Your task to perform on an android device: set an alarm Image 0: 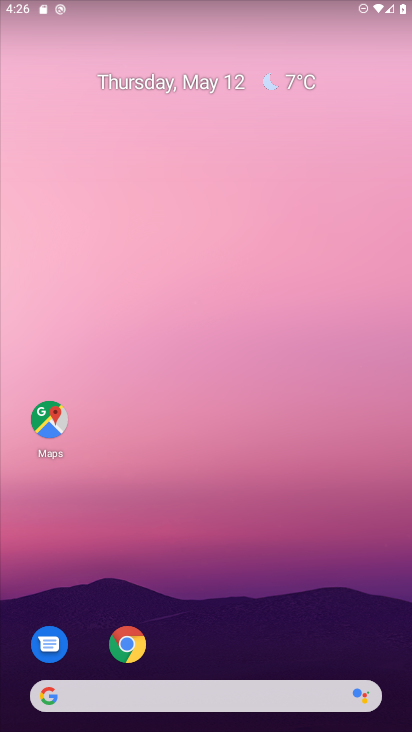
Step 0: drag from (202, 632) to (262, 28)
Your task to perform on an android device: set an alarm Image 1: 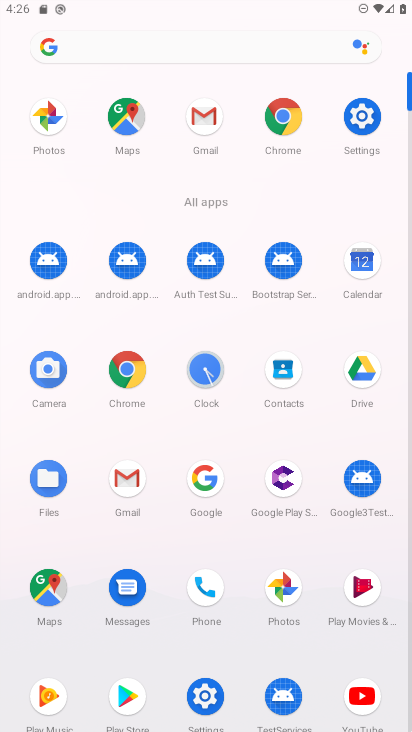
Step 1: click (207, 378)
Your task to perform on an android device: set an alarm Image 2: 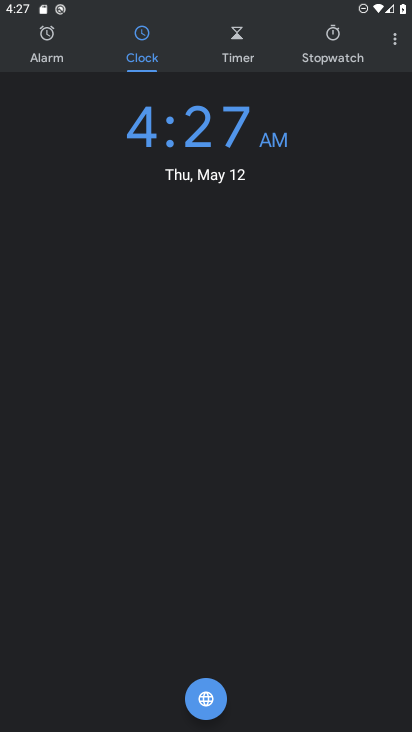
Step 2: click (68, 51)
Your task to perform on an android device: set an alarm Image 3: 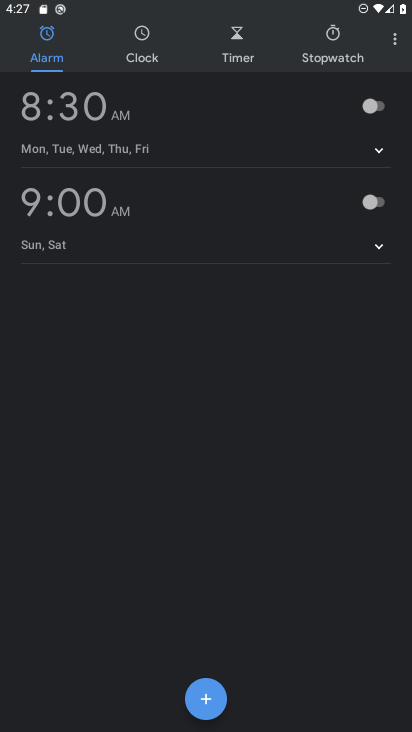
Step 3: click (101, 132)
Your task to perform on an android device: set an alarm Image 4: 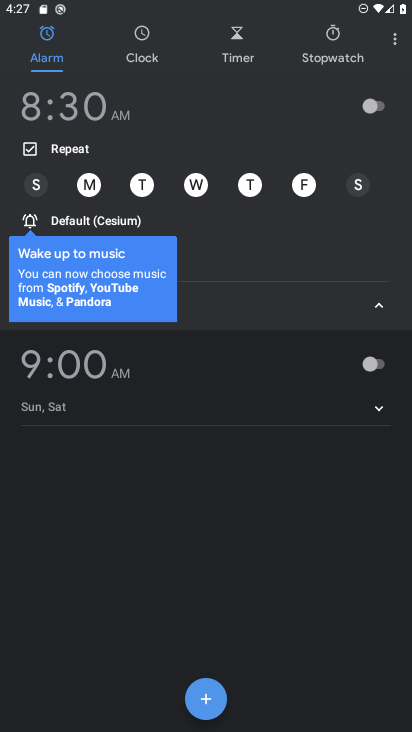
Step 4: click (64, 109)
Your task to perform on an android device: set an alarm Image 5: 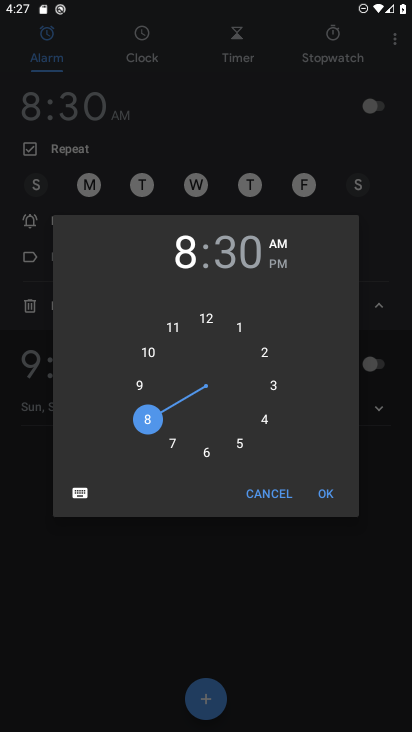
Step 5: click (137, 383)
Your task to perform on an android device: set an alarm Image 6: 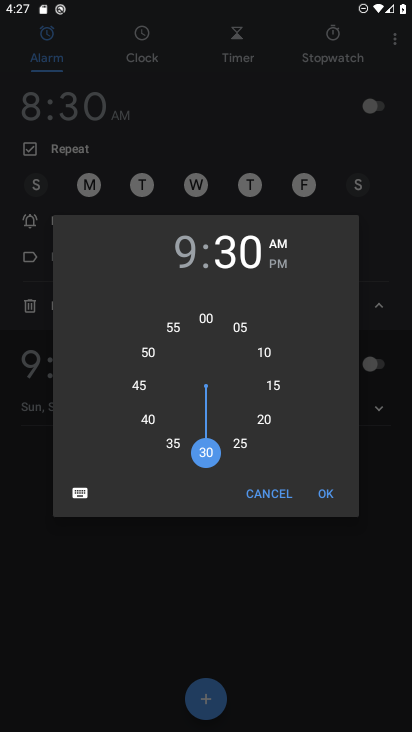
Step 6: click (248, 406)
Your task to perform on an android device: set an alarm Image 7: 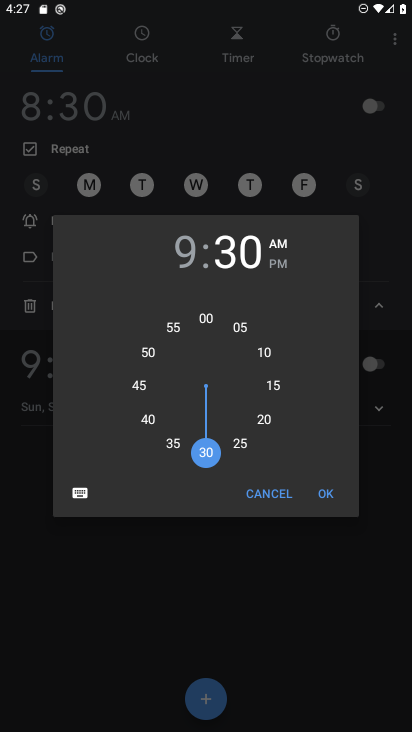
Step 7: click (269, 421)
Your task to perform on an android device: set an alarm Image 8: 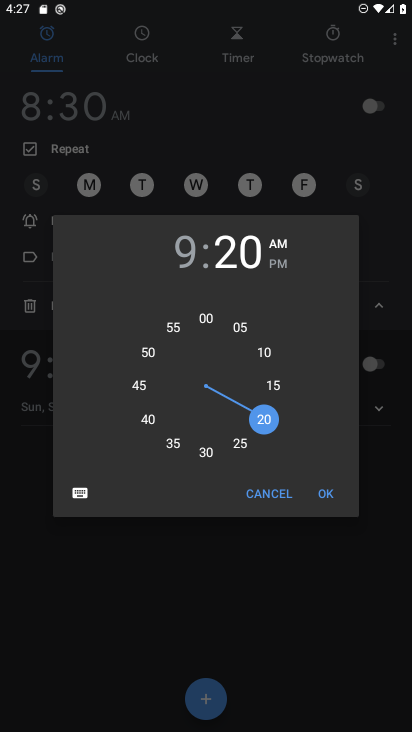
Step 8: click (337, 488)
Your task to perform on an android device: set an alarm Image 9: 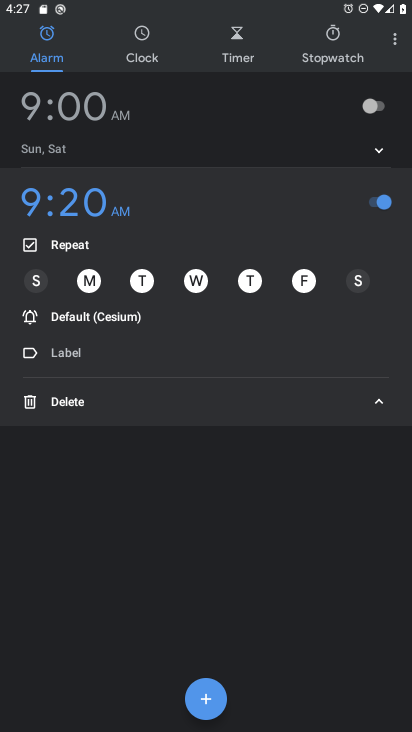
Step 9: click (149, 287)
Your task to perform on an android device: set an alarm Image 10: 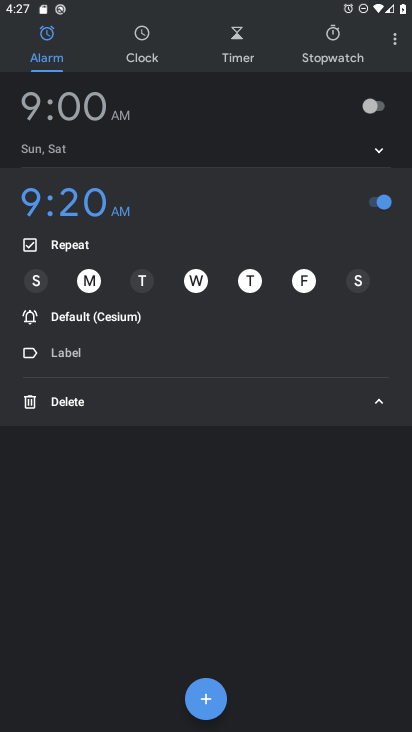
Step 10: click (90, 287)
Your task to perform on an android device: set an alarm Image 11: 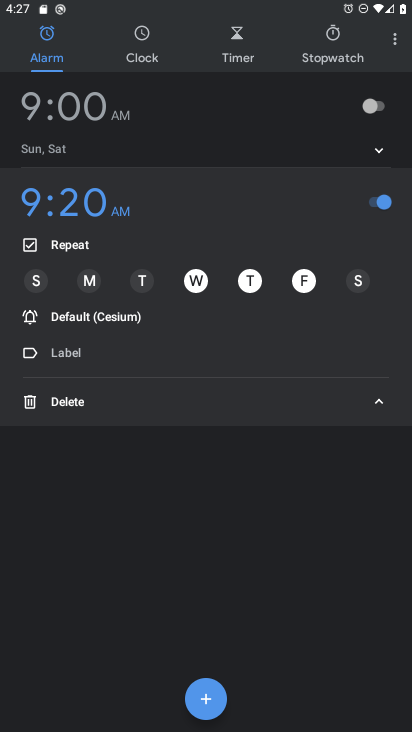
Step 11: click (360, 290)
Your task to perform on an android device: set an alarm Image 12: 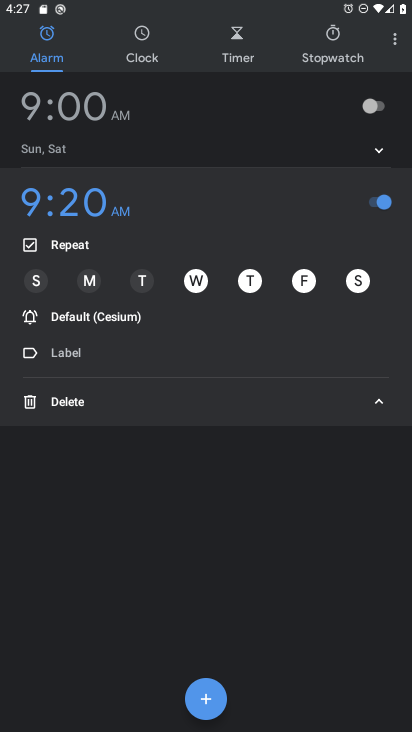
Step 12: task complete